Your task to perform on an android device: Search for Italian restaurants on Maps Image 0: 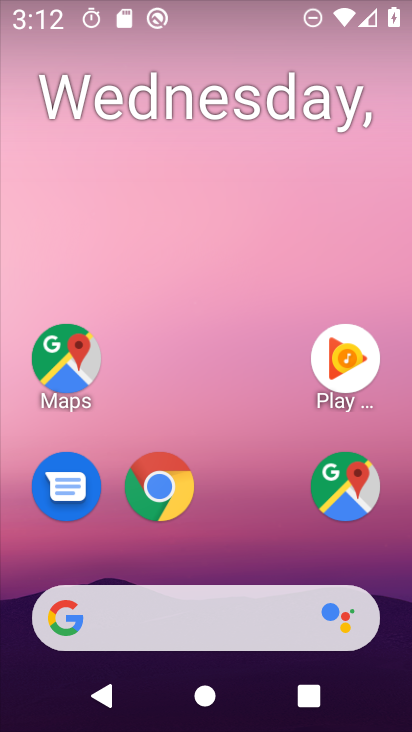
Step 0: drag from (230, 549) to (229, 176)
Your task to perform on an android device: Search for Italian restaurants on Maps Image 1: 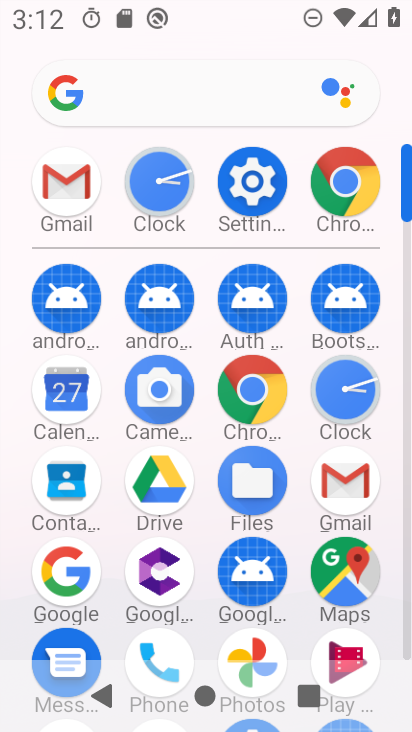
Step 1: click (344, 576)
Your task to perform on an android device: Search for Italian restaurants on Maps Image 2: 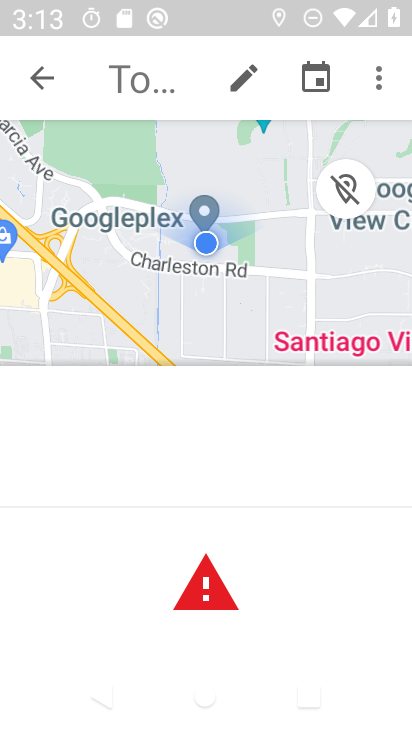
Step 2: press back button
Your task to perform on an android device: Search for Italian restaurants on Maps Image 3: 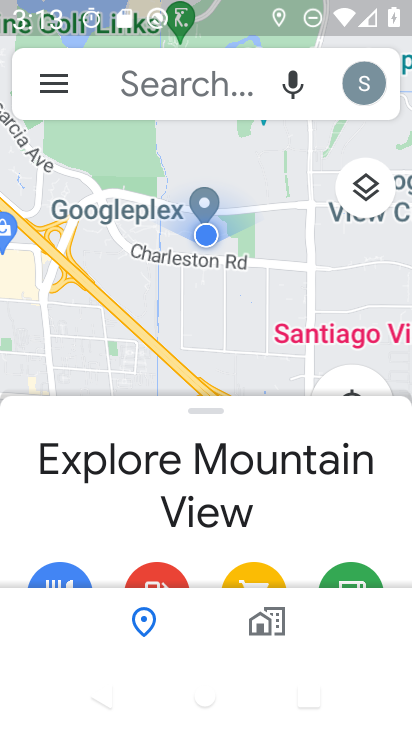
Step 3: click (209, 87)
Your task to perform on an android device: Search for Italian restaurants on Maps Image 4: 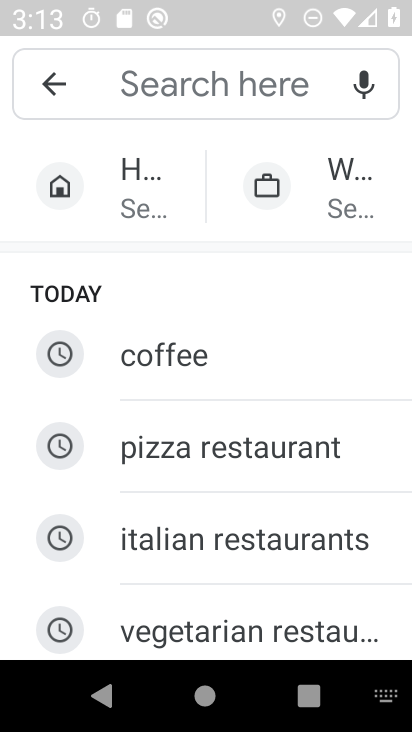
Step 4: type "italian restaurants"
Your task to perform on an android device: Search for Italian restaurants on Maps Image 5: 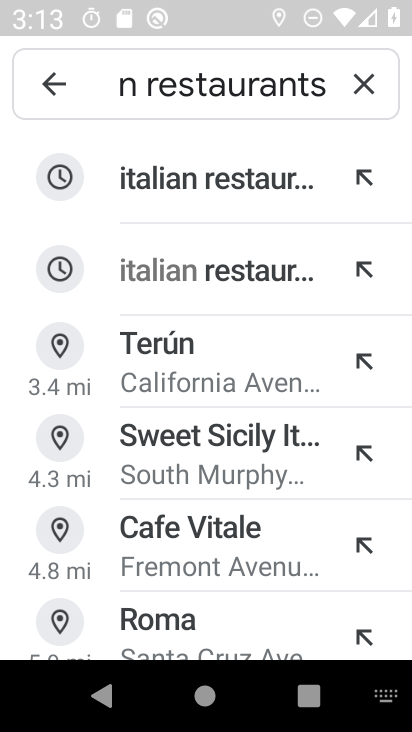
Step 5: click (303, 194)
Your task to perform on an android device: Search for Italian restaurants on Maps Image 6: 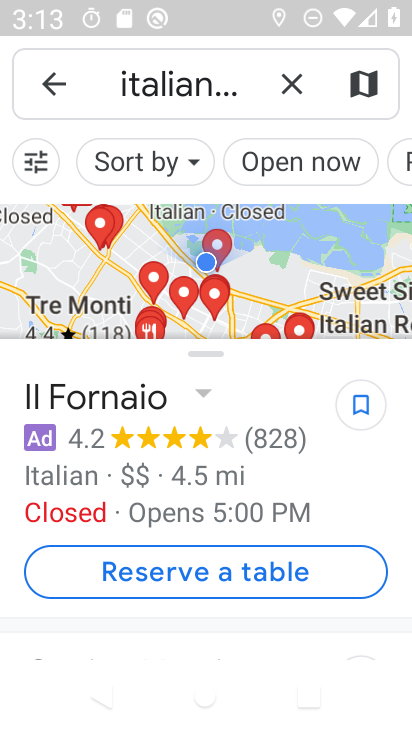
Step 6: task complete